Your task to perform on an android device: turn off sleep mode Image 0: 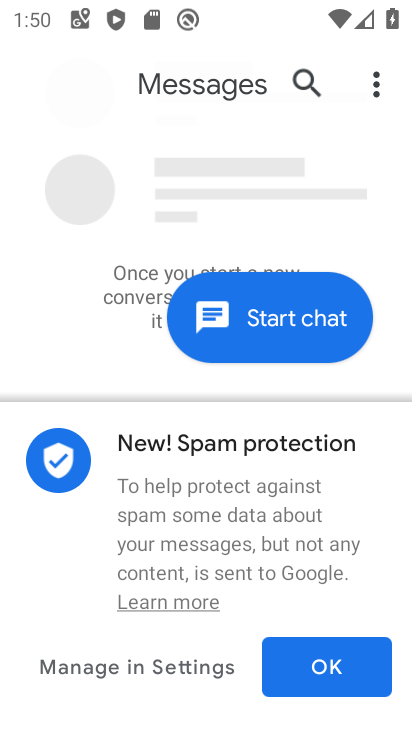
Step 0: press home button
Your task to perform on an android device: turn off sleep mode Image 1: 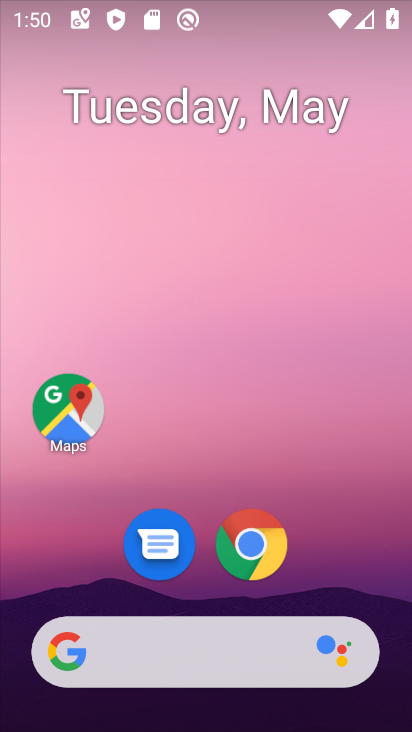
Step 1: drag from (311, 562) to (269, 62)
Your task to perform on an android device: turn off sleep mode Image 2: 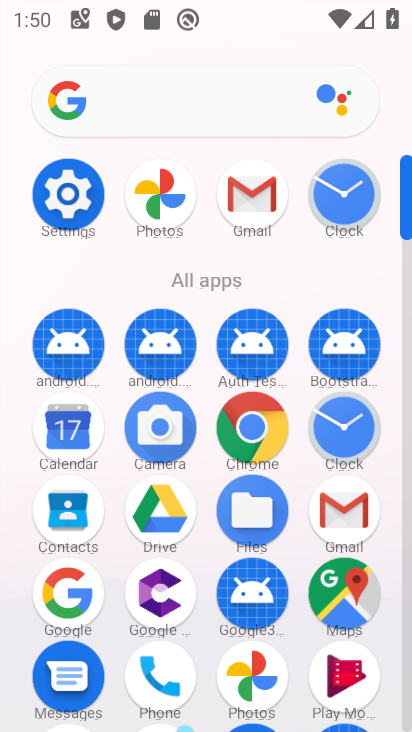
Step 2: click (84, 197)
Your task to perform on an android device: turn off sleep mode Image 3: 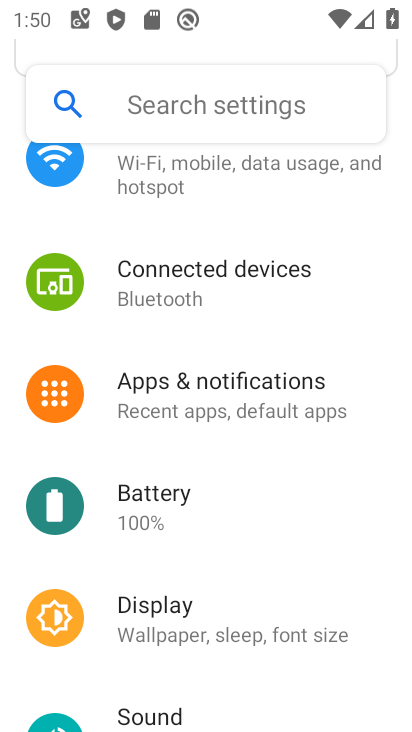
Step 3: drag from (286, 619) to (331, 312)
Your task to perform on an android device: turn off sleep mode Image 4: 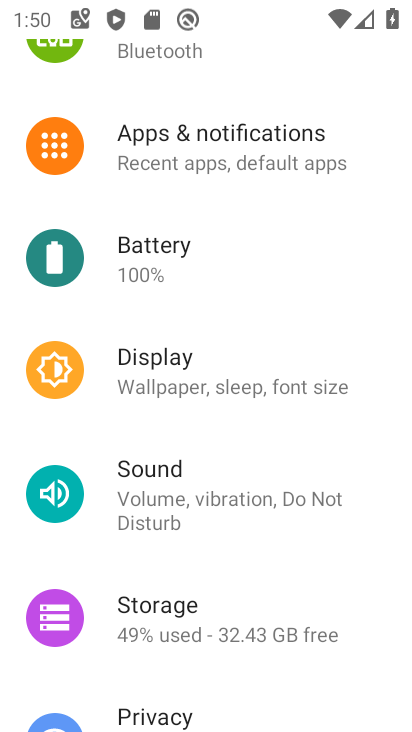
Step 4: click (227, 396)
Your task to perform on an android device: turn off sleep mode Image 5: 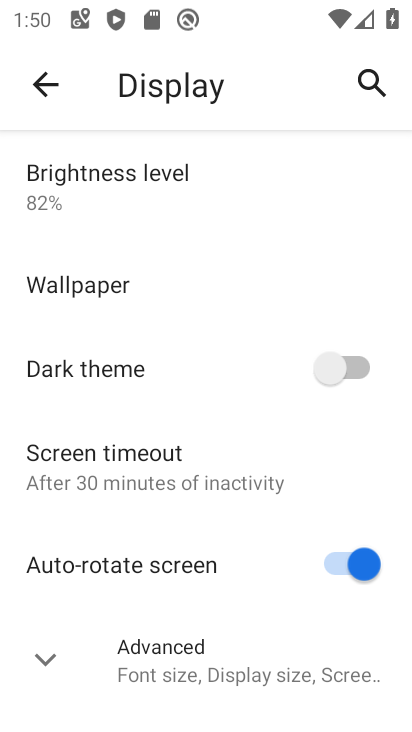
Step 5: click (147, 481)
Your task to perform on an android device: turn off sleep mode Image 6: 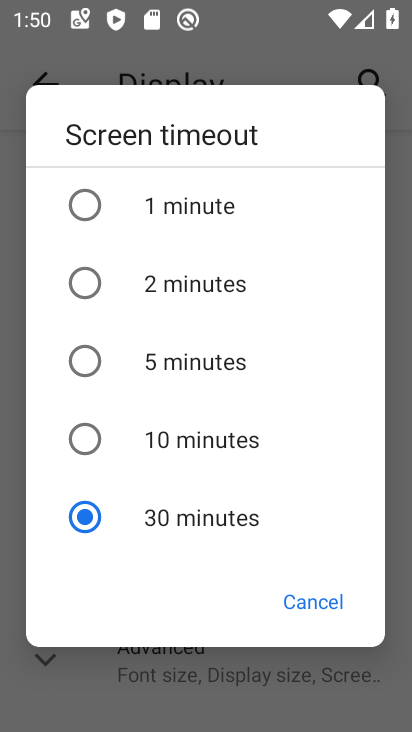
Step 6: task complete